Your task to perform on an android device: visit the assistant section in the google photos Image 0: 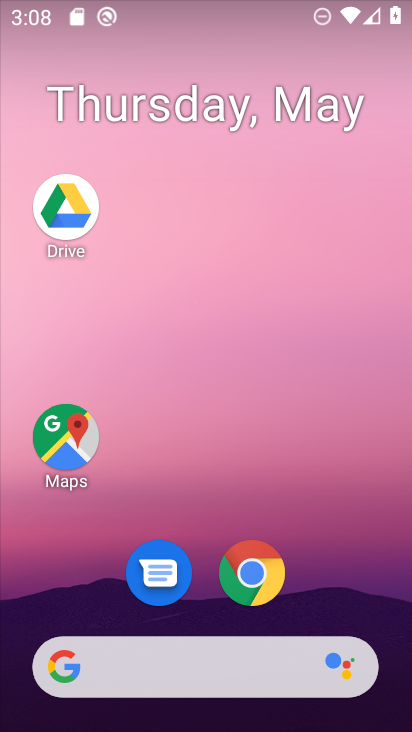
Step 0: drag from (316, 576) to (180, 97)
Your task to perform on an android device: visit the assistant section in the google photos Image 1: 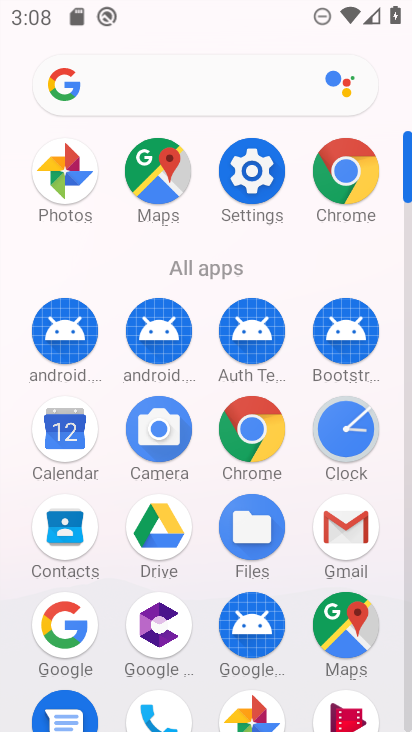
Step 1: click (64, 168)
Your task to perform on an android device: visit the assistant section in the google photos Image 2: 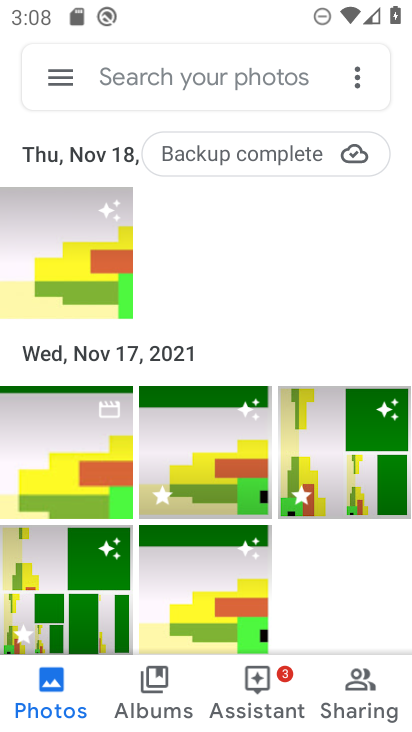
Step 2: click (237, 686)
Your task to perform on an android device: visit the assistant section in the google photos Image 3: 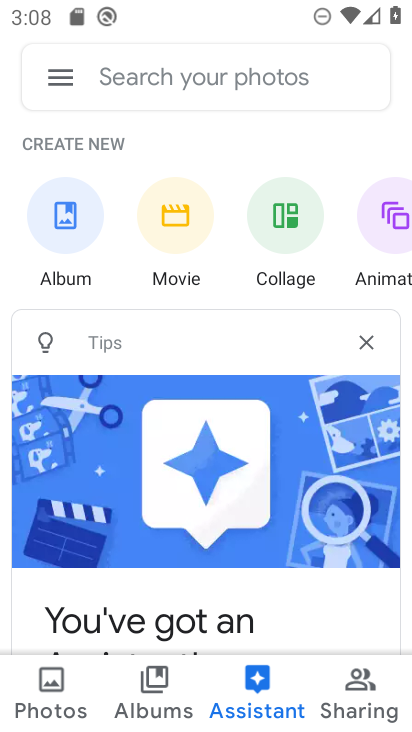
Step 3: task complete